Your task to perform on an android device: What's the weather going to be tomorrow? Image 0: 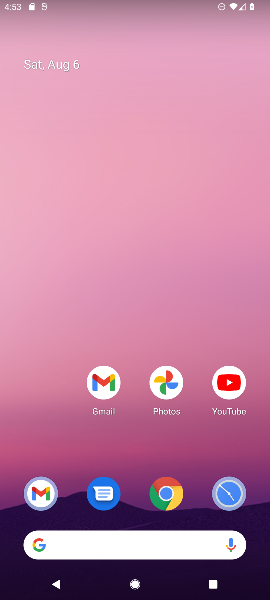
Step 0: drag from (184, 461) to (146, 298)
Your task to perform on an android device: What's the weather going to be tomorrow? Image 1: 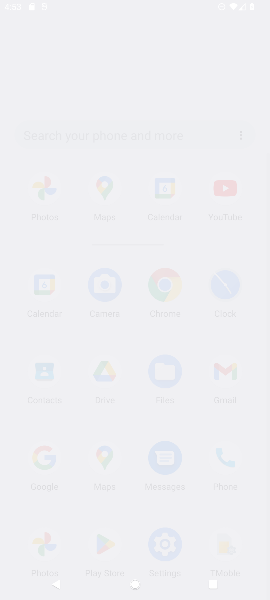
Step 1: drag from (137, 509) to (134, 202)
Your task to perform on an android device: What's the weather going to be tomorrow? Image 2: 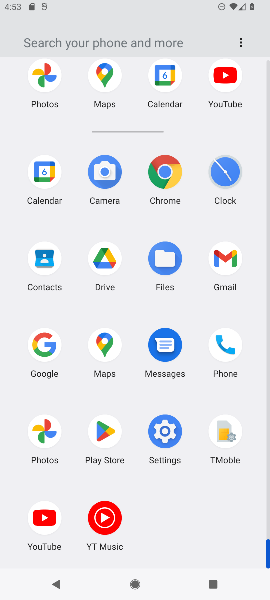
Step 2: click (166, 176)
Your task to perform on an android device: What's the weather going to be tomorrow? Image 3: 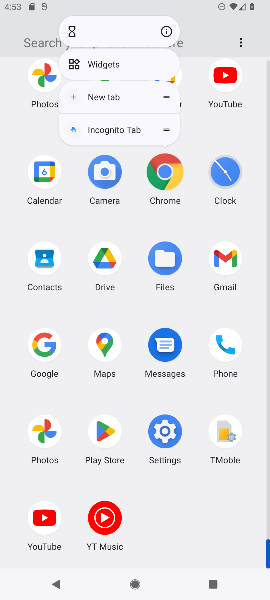
Step 3: click (166, 176)
Your task to perform on an android device: What's the weather going to be tomorrow? Image 4: 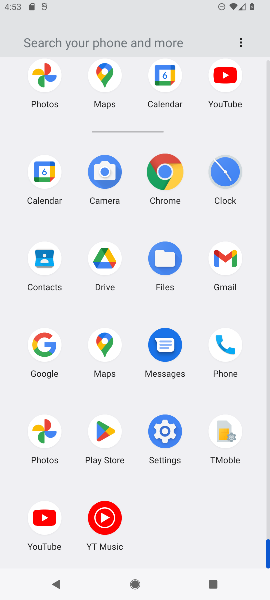
Step 4: click (164, 176)
Your task to perform on an android device: What's the weather going to be tomorrow? Image 5: 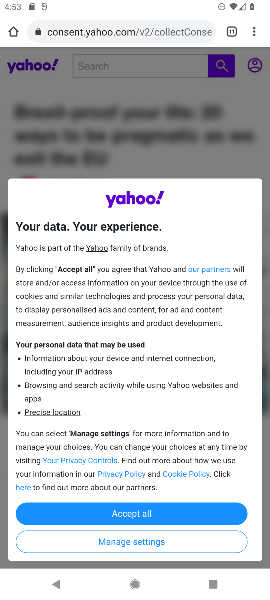
Step 5: drag from (252, 28) to (165, 92)
Your task to perform on an android device: What's the weather going to be tomorrow? Image 6: 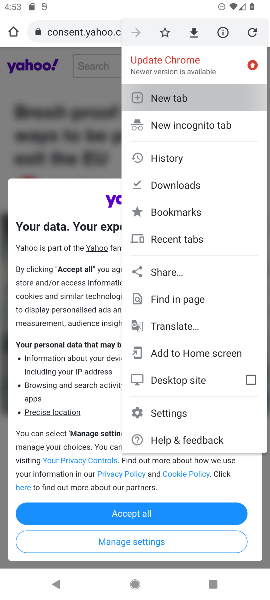
Step 6: click (165, 95)
Your task to perform on an android device: What's the weather going to be tomorrow? Image 7: 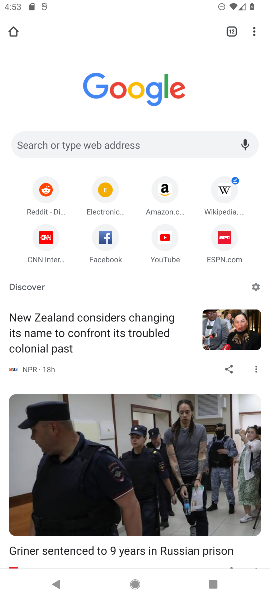
Step 7: click (45, 146)
Your task to perform on an android device: What's the weather going to be tomorrow? Image 8: 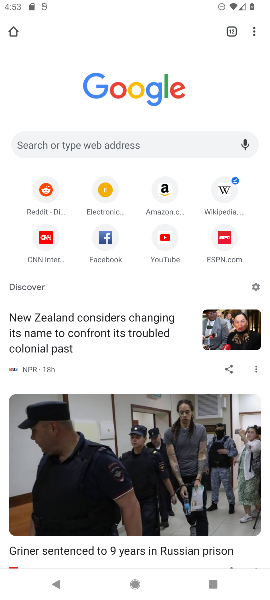
Step 8: click (45, 146)
Your task to perform on an android device: What's the weather going to be tomorrow? Image 9: 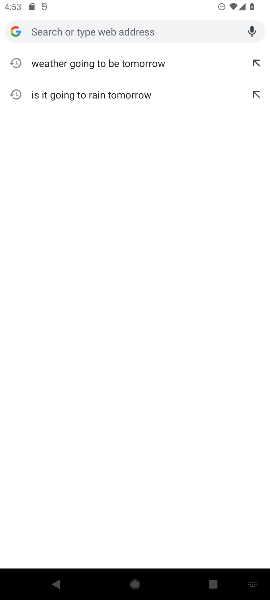
Step 9: type "what's the weather going to be tomorrow"
Your task to perform on an android device: What's the weather going to be tomorrow? Image 10: 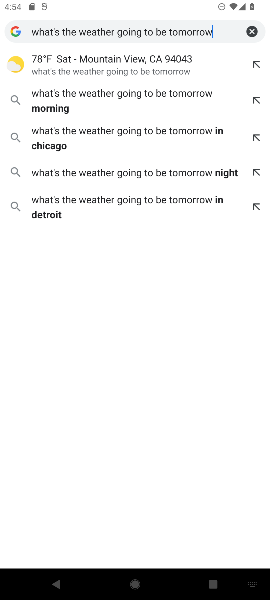
Step 10: click (131, 102)
Your task to perform on an android device: What's the weather going to be tomorrow? Image 11: 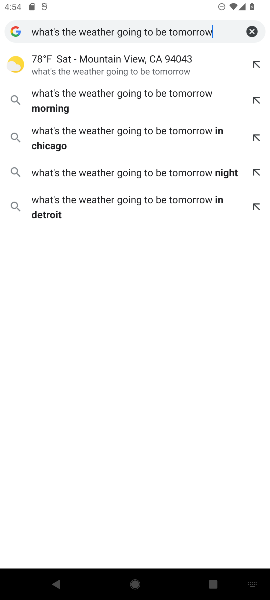
Step 11: click (131, 102)
Your task to perform on an android device: What's the weather going to be tomorrow? Image 12: 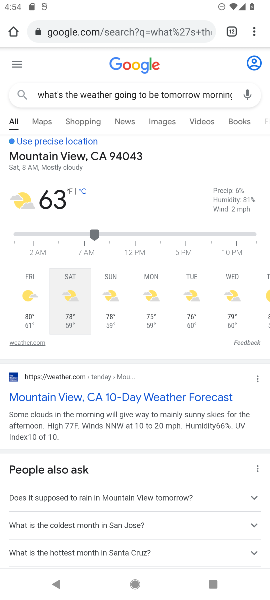
Step 12: task complete